Your task to perform on an android device: turn pop-ups on in chrome Image 0: 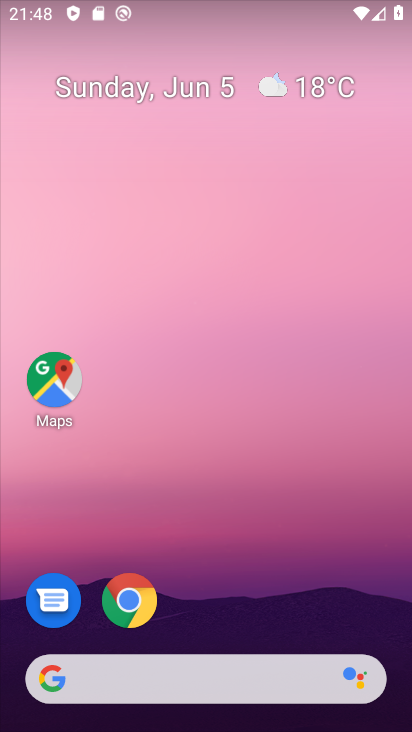
Step 0: click (131, 603)
Your task to perform on an android device: turn pop-ups on in chrome Image 1: 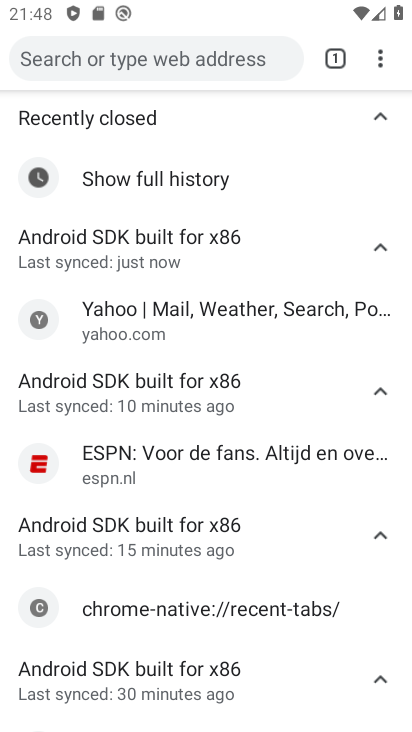
Step 1: drag from (379, 56) to (192, 486)
Your task to perform on an android device: turn pop-ups on in chrome Image 2: 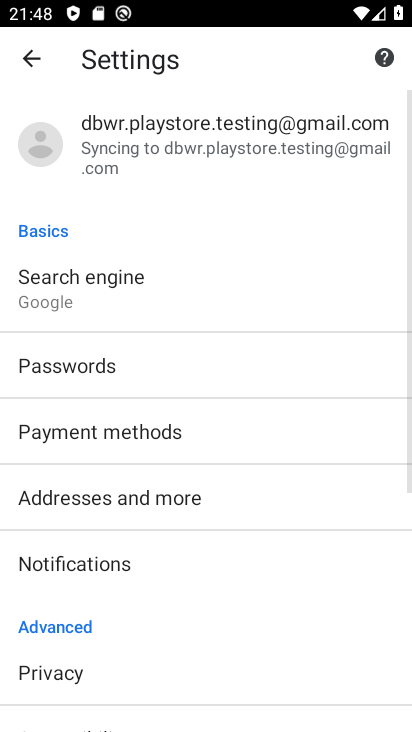
Step 2: drag from (171, 561) to (264, 84)
Your task to perform on an android device: turn pop-ups on in chrome Image 3: 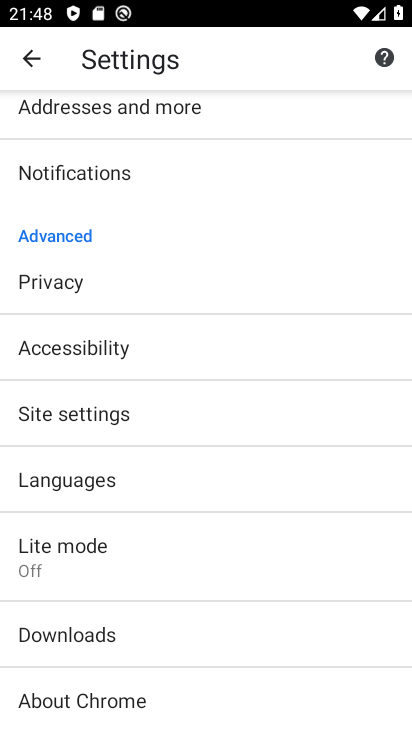
Step 3: click (108, 415)
Your task to perform on an android device: turn pop-ups on in chrome Image 4: 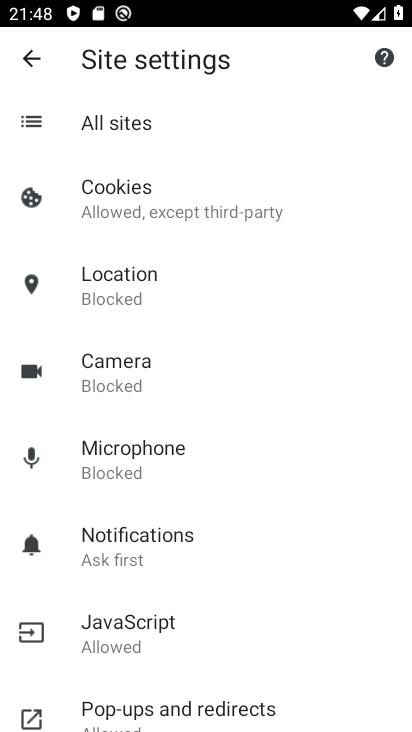
Step 4: click (130, 712)
Your task to perform on an android device: turn pop-ups on in chrome Image 5: 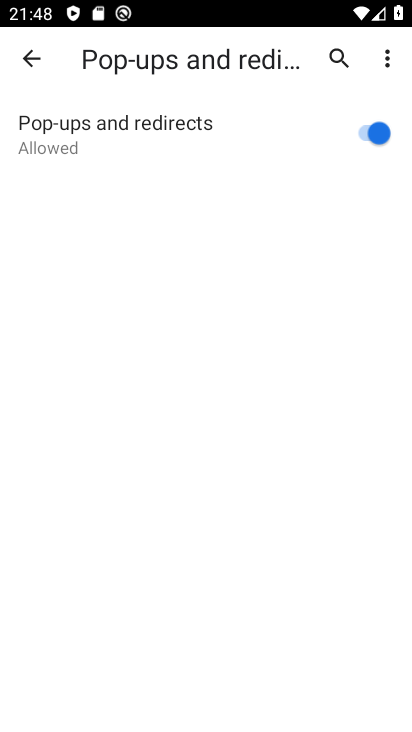
Step 5: task complete